Your task to perform on an android device: Show me the alarms in the clock app Image 0: 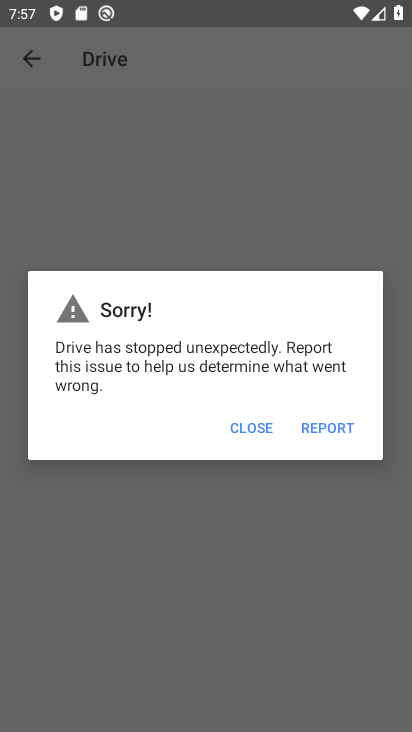
Step 0: press home button
Your task to perform on an android device: Show me the alarms in the clock app Image 1: 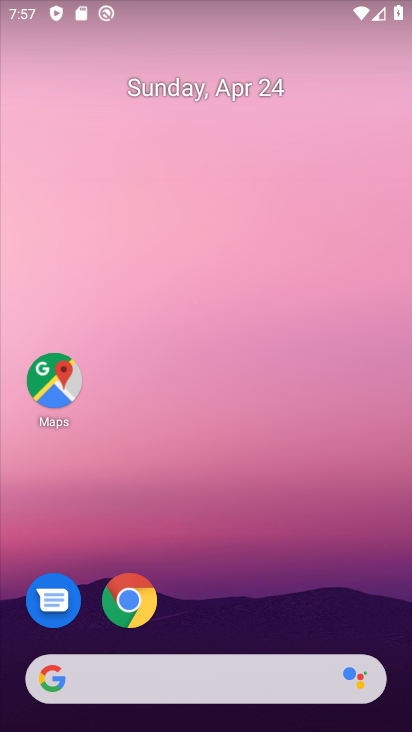
Step 1: drag from (182, 570) to (246, 43)
Your task to perform on an android device: Show me the alarms in the clock app Image 2: 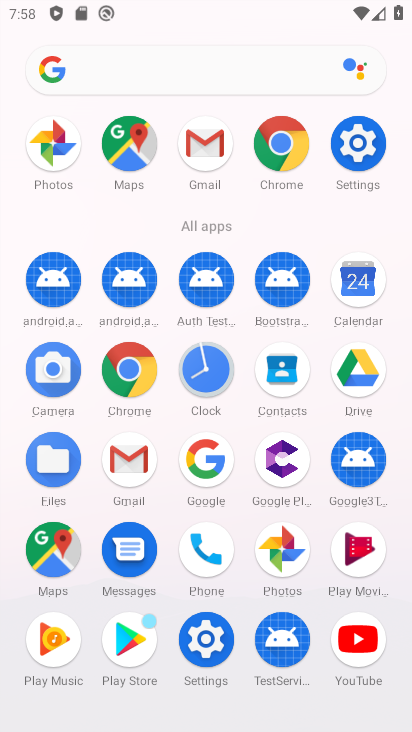
Step 2: click (197, 356)
Your task to perform on an android device: Show me the alarms in the clock app Image 3: 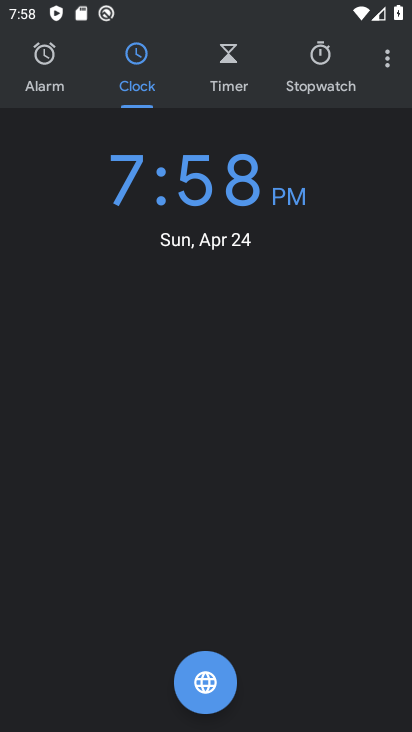
Step 3: click (41, 86)
Your task to perform on an android device: Show me the alarms in the clock app Image 4: 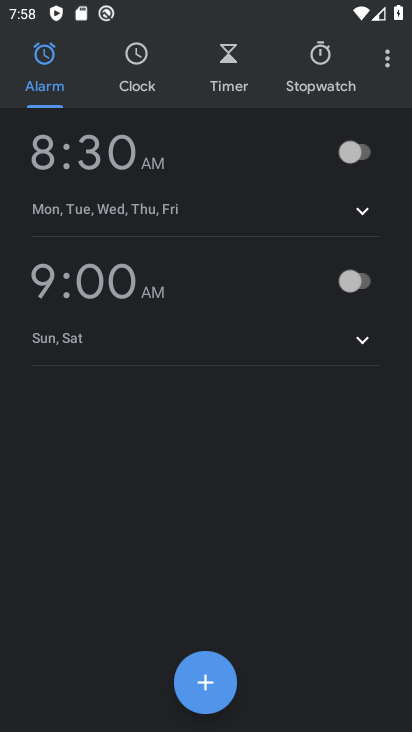
Step 4: task complete